Your task to perform on an android device: Open settings on Google Maps Image 0: 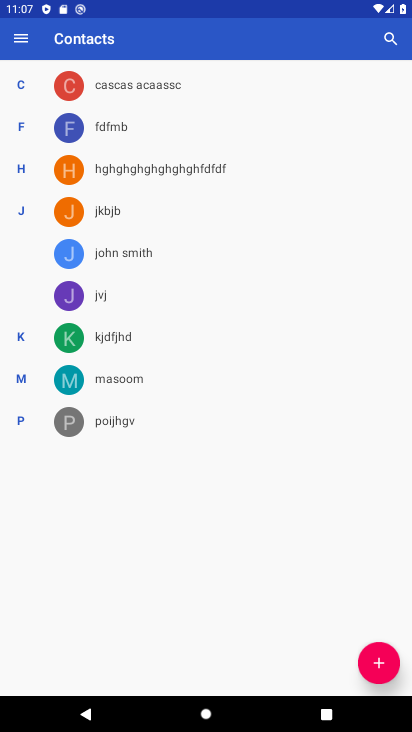
Step 0: click (151, 608)
Your task to perform on an android device: Open settings on Google Maps Image 1: 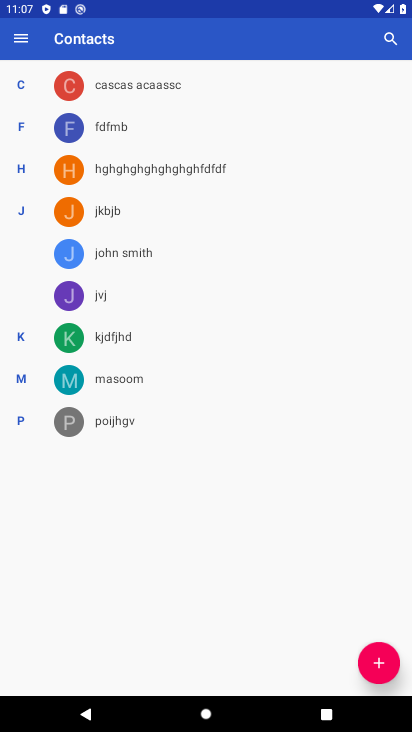
Step 1: press home button
Your task to perform on an android device: Open settings on Google Maps Image 2: 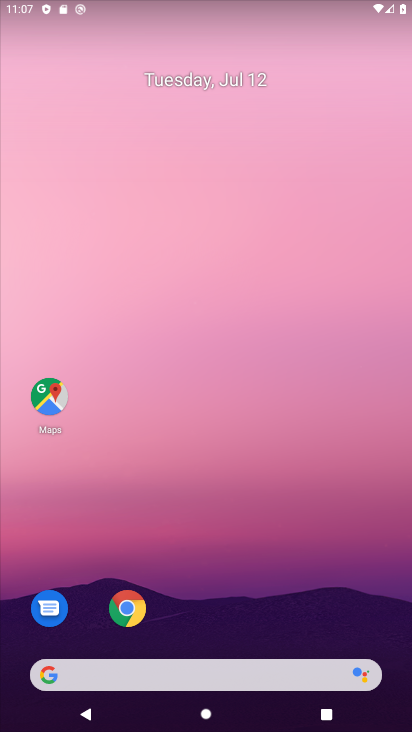
Step 2: click (50, 391)
Your task to perform on an android device: Open settings on Google Maps Image 3: 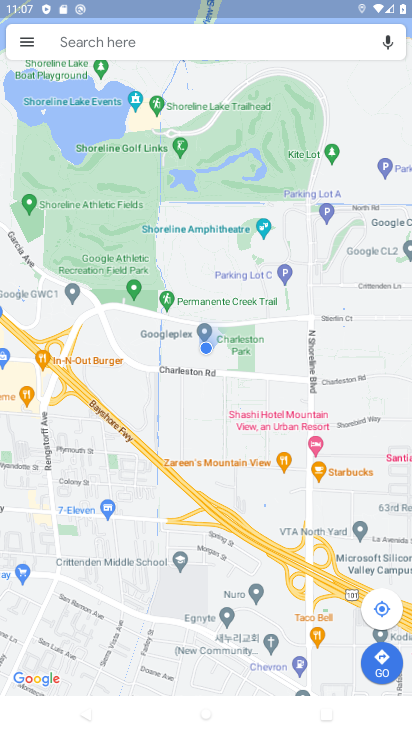
Step 3: click (32, 51)
Your task to perform on an android device: Open settings on Google Maps Image 4: 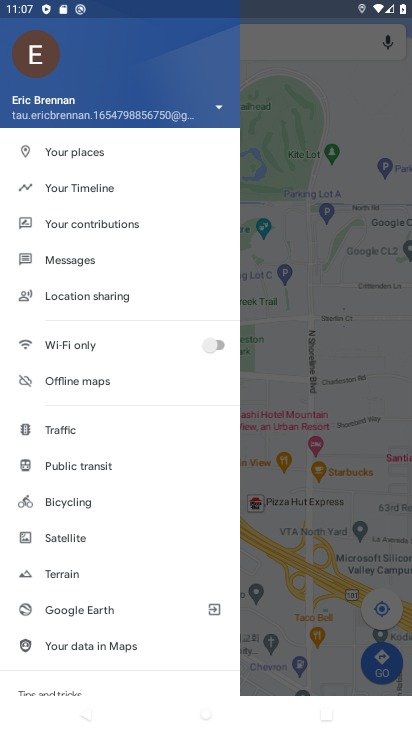
Step 4: drag from (108, 633) to (88, 231)
Your task to perform on an android device: Open settings on Google Maps Image 5: 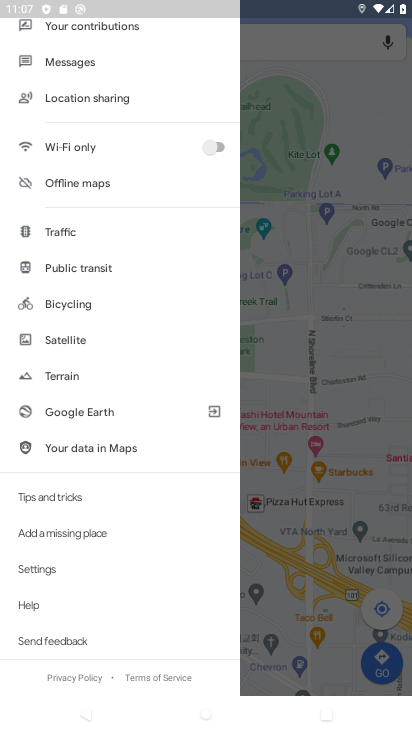
Step 5: drag from (128, 629) to (155, 87)
Your task to perform on an android device: Open settings on Google Maps Image 6: 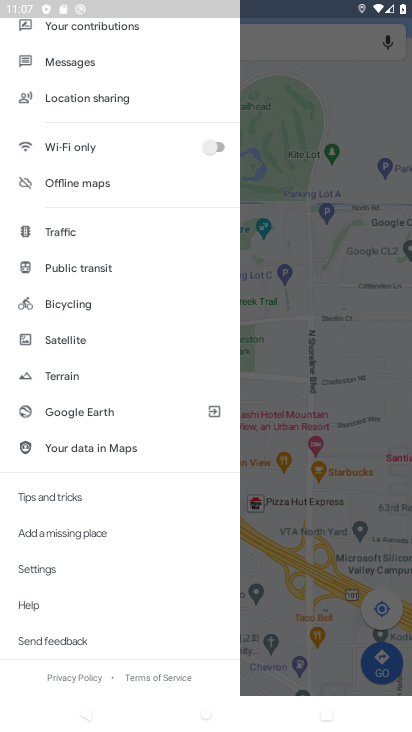
Step 6: click (88, 576)
Your task to perform on an android device: Open settings on Google Maps Image 7: 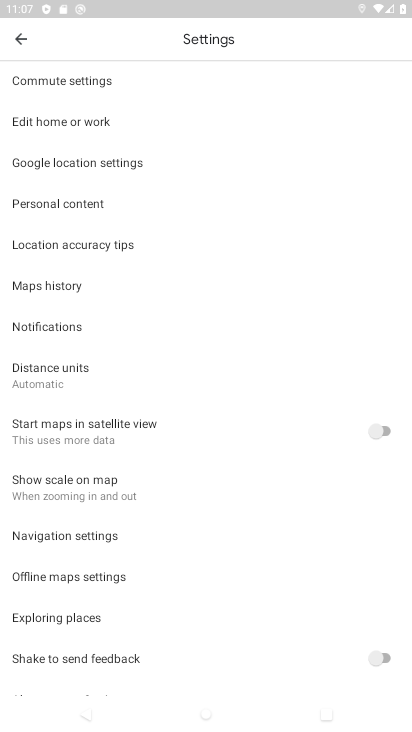
Step 7: task complete